Your task to perform on an android device: turn on data saver in the chrome app Image 0: 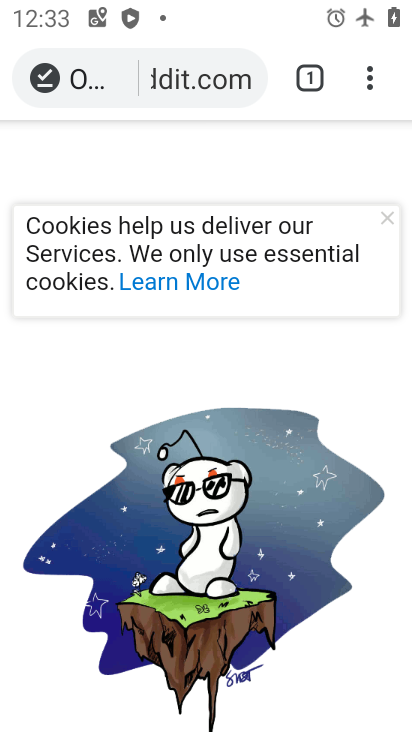
Step 0: press home button
Your task to perform on an android device: turn on data saver in the chrome app Image 1: 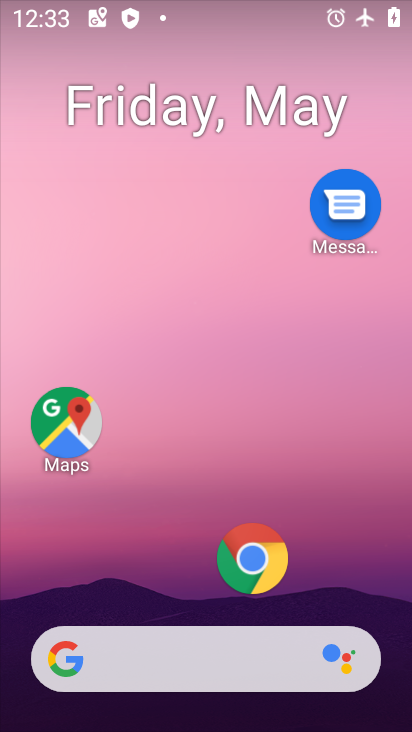
Step 1: drag from (236, 614) to (240, 141)
Your task to perform on an android device: turn on data saver in the chrome app Image 2: 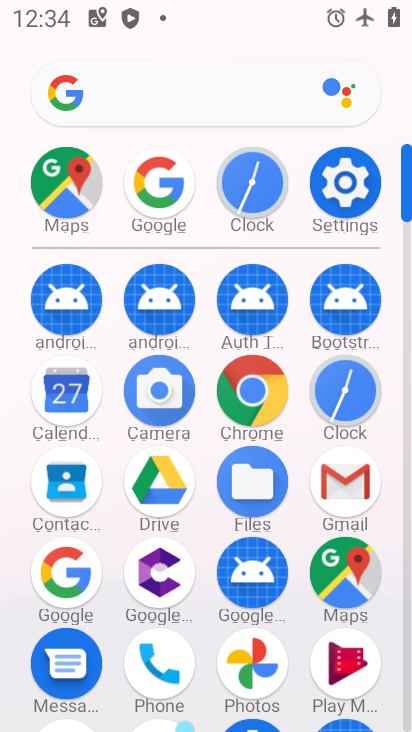
Step 2: click (265, 403)
Your task to perform on an android device: turn on data saver in the chrome app Image 3: 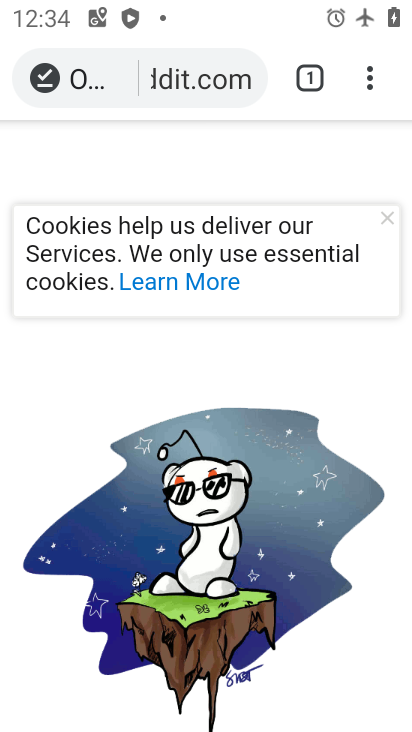
Step 3: click (375, 80)
Your task to perform on an android device: turn on data saver in the chrome app Image 4: 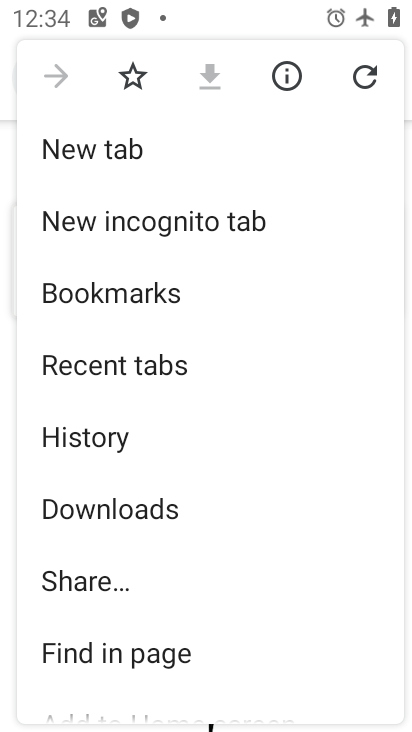
Step 4: drag from (205, 566) to (192, 305)
Your task to perform on an android device: turn on data saver in the chrome app Image 5: 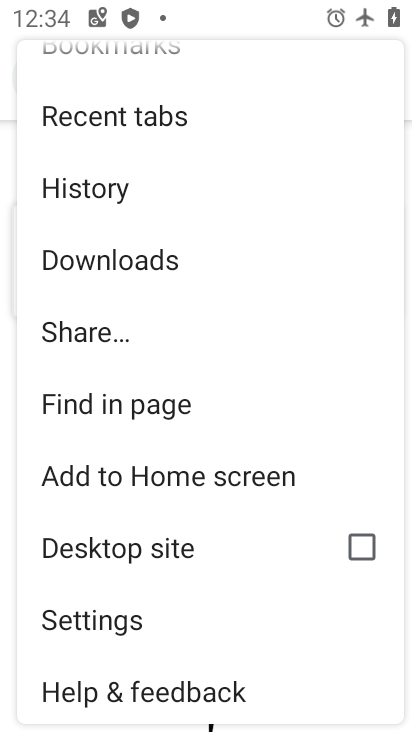
Step 5: click (128, 626)
Your task to perform on an android device: turn on data saver in the chrome app Image 6: 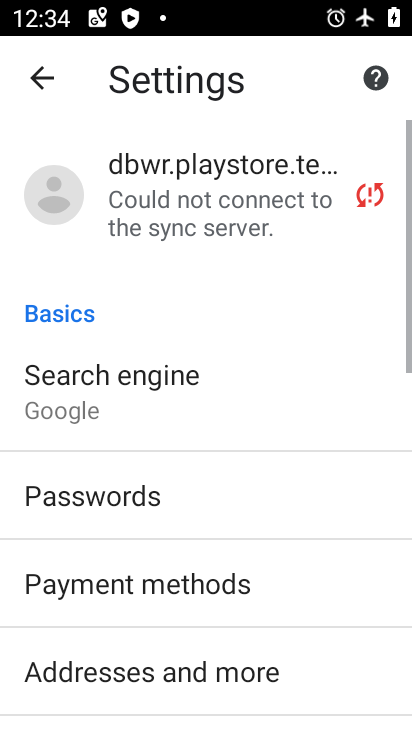
Step 6: drag from (138, 524) to (148, 229)
Your task to perform on an android device: turn on data saver in the chrome app Image 7: 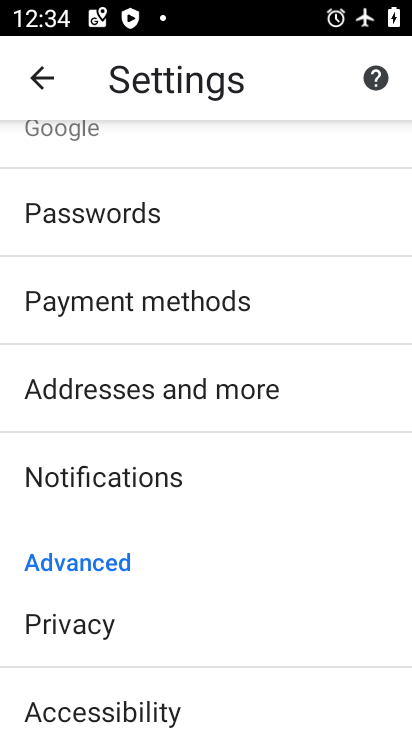
Step 7: drag from (172, 537) to (179, 321)
Your task to perform on an android device: turn on data saver in the chrome app Image 8: 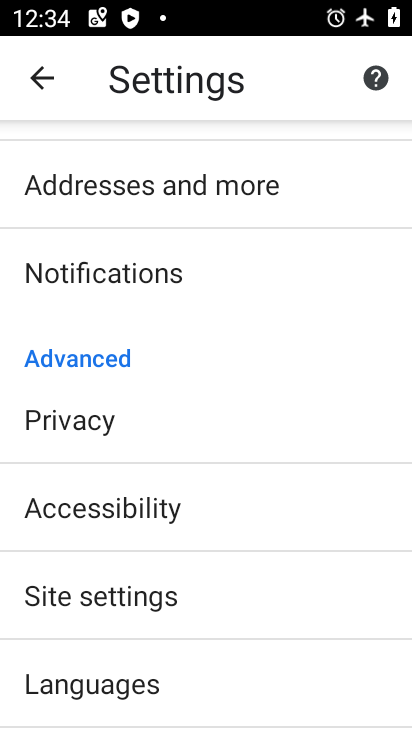
Step 8: drag from (152, 627) to (148, 298)
Your task to perform on an android device: turn on data saver in the chrome app Image 9: 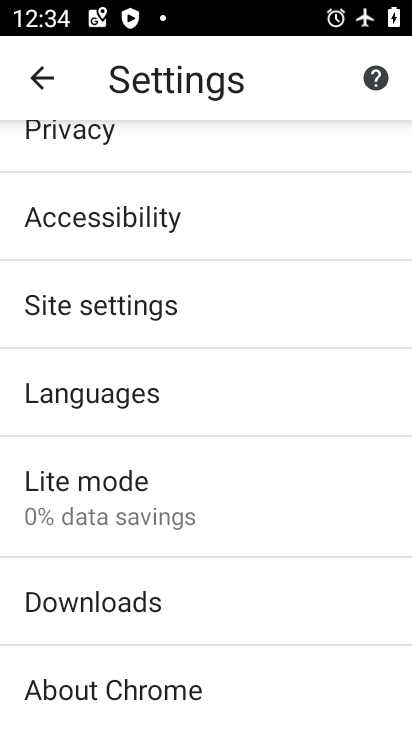
Step 9: click (148, 512)
Your task to perform on an android device: turn on data saver in the chrome app Image 10: 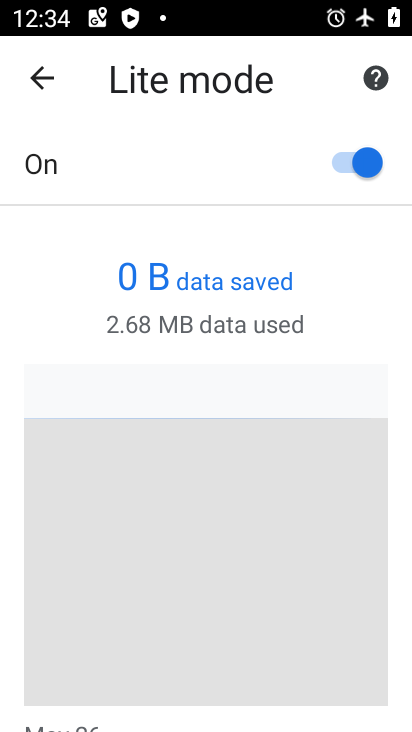
Step 10: task complete